Your task to perform on an android device: Search for logitech g933 on target.com, select the first entry, add it to the cart, then select checkout. Image 0: 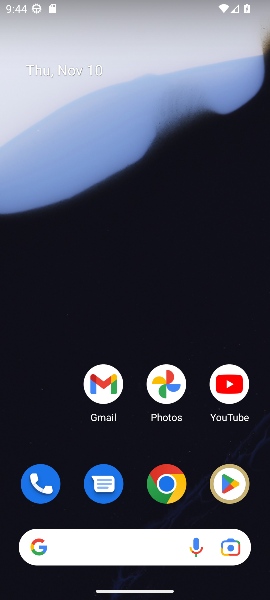
Step 0: click (161, 492)
Your task to perform on an android device: Search for logitech g933 on target.com, select the first entry, add it to the cart, then select checkout. Image 1: 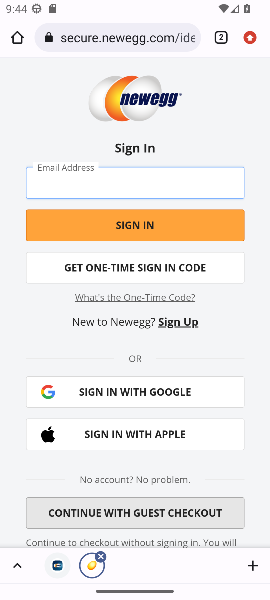
Step 1: click (93, 34)
Your task to perform on an android device: Search for logitech g933 on target.com, select the first entry, add it to the cart, then select checkout. Image 2: 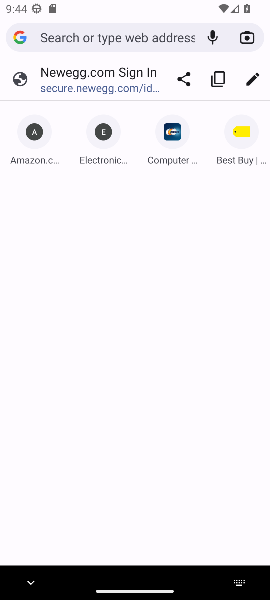
Step 2: type "target.com"
Your task to perform on an android device: Search for logitech g933 on target.com, select the first entry, add it to the cart, then select checkout. Image 3: 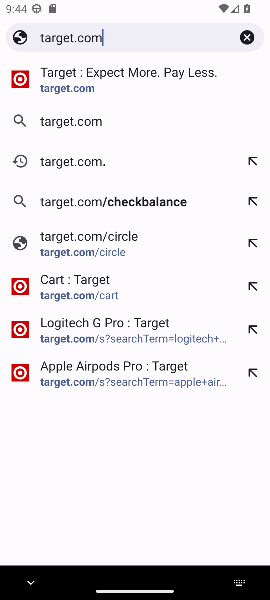
Step 3: click (63, 89)
Your task to perform on an android device: Search for logitech g933 on target.com, select the first entry, add it to the cart, then select checkout. Image 4: 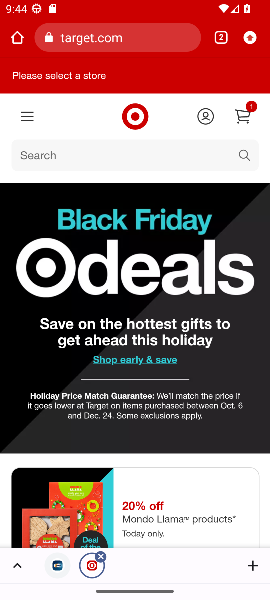
Step 4: click (245, 152)
Your task to perform on an android device: Search for logitech g933 on target.com, select the first entry, add it to the cart, then select checkout. Image 5: 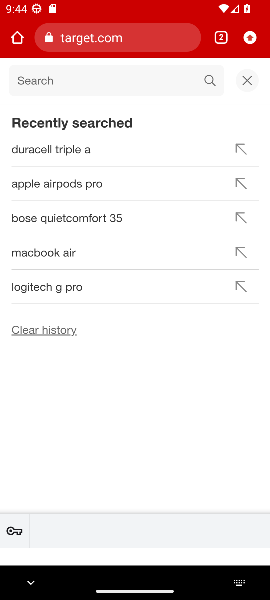
Step 5: type "logitech g933 "
Your task to perform on an android device: Search for logitech g933 on target.com, select the first entry, add it to the cart, then select checkout. Image 6: 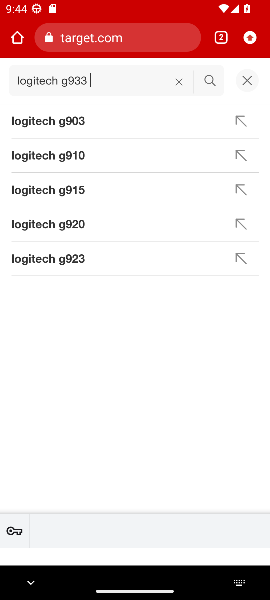
Step 6: click (206, 81)
Your task to perform on an android device: Search for logitech g933 on target.com, select the first entry, add it to the cart, then select checkout. Image 7: 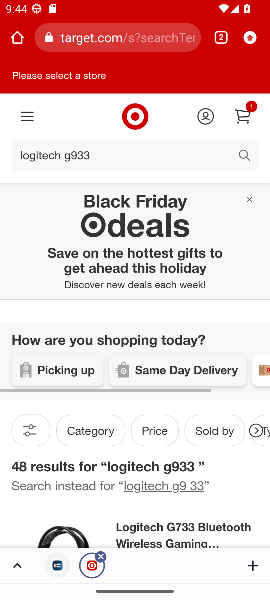
Step 7: task complete